Your task to perform on an android device: What's on my calendar today? Image 0: 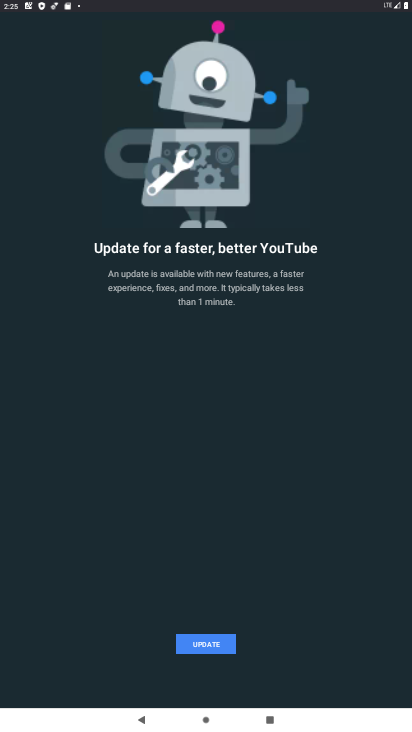
Step 0: press back button
Your task to perform on an android device: What's on my calendar today? Image 1: 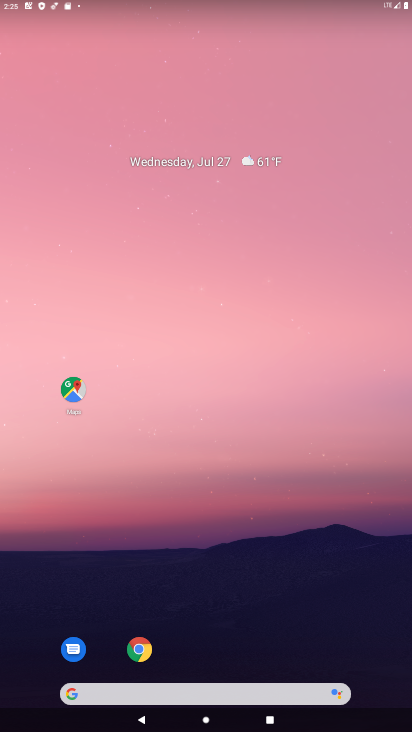
Step 1: drag from (189, 552) to (189, 166)
Your task to perform on an android device: What's on my calendar today? Image 2: 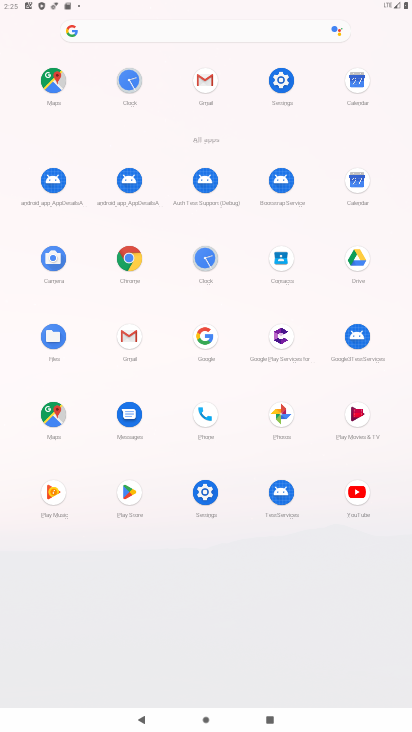
Step 2: click (361, 186)
Your task to perform on an android device: What's on my calendar today? Image 3: 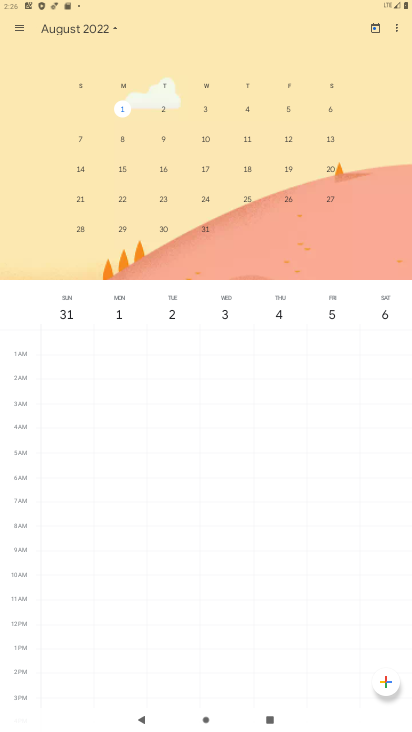
Step 3: drag from (150, 124) to (383, 150)
Your task to perform on an android device: What's on my calendar today? Image 4: 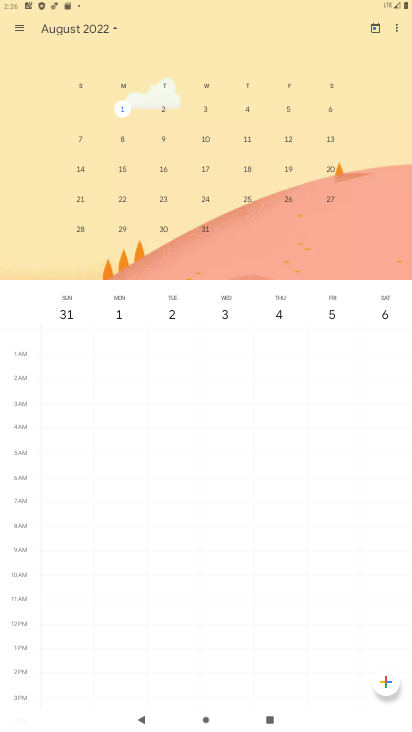
Step 4: drag from (160, 182) to (348, 150)
Your task to perform on an android device: What's on my calendar today? Image 5: 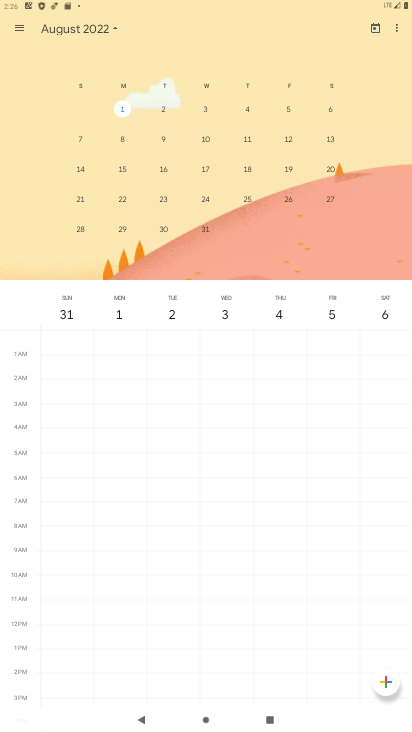
Step 5: drag from (151, 159) to (360, 141)
Your task to perform on an android device: What's on my calendar today? Image 6: 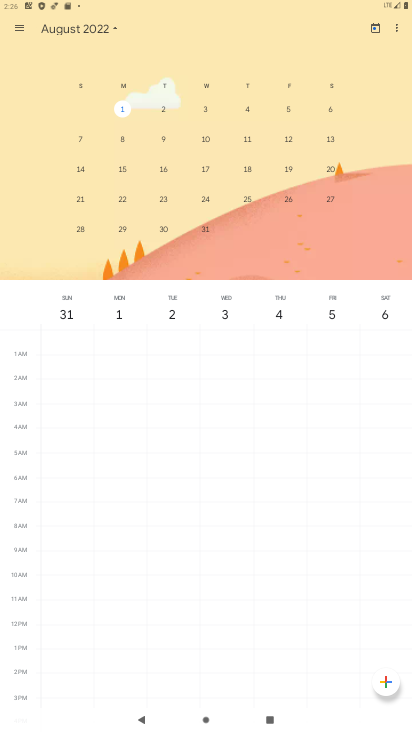
Step 6: click (396, 113)
Your task to perform on an android device: What's on my calendar today? Image 7: 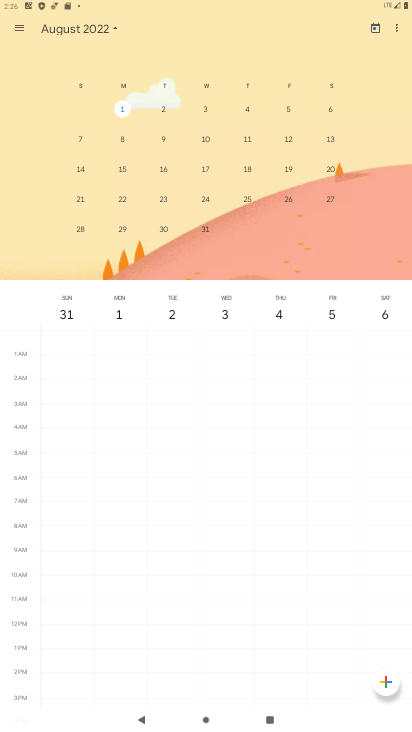
Step 7: click (365, 138)
Your task to perform on an android device: What's on my calendar today? Image 8: 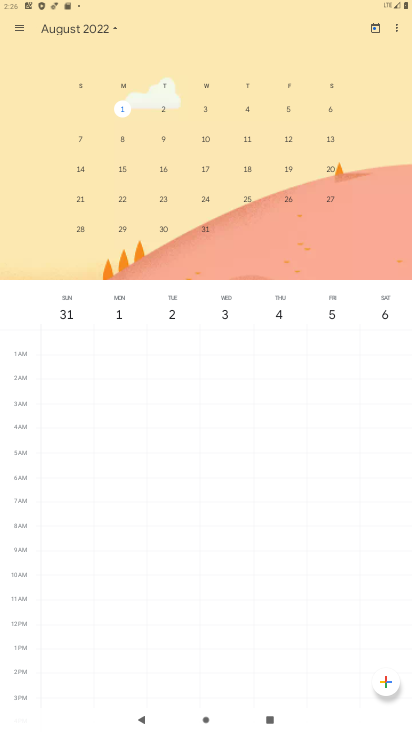
Step 8: click (379, 108)
Your task to perform on an android device: What's on my calendar today? Image 9: 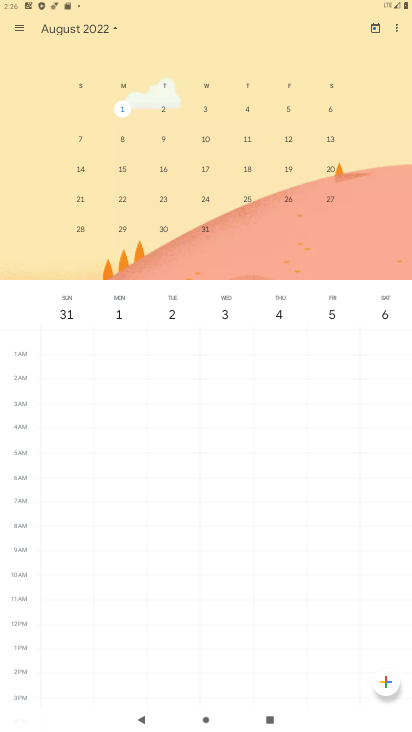
Step 9: click (394, 121)
Your task to perform on an android device: What's on my calendar today? Image 10: 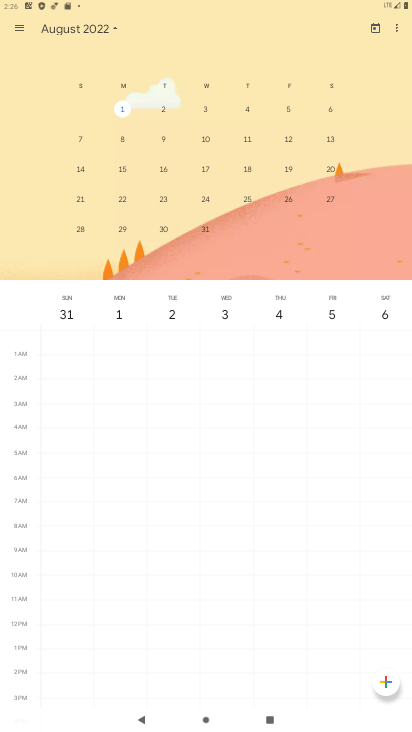
Step 10: click (390, 164)
Your task to perform on an android device: What's on my calendar today? Image 11: 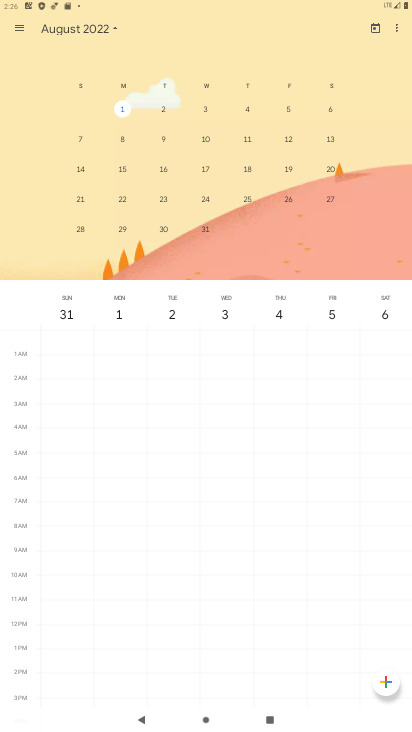
Step 11: drag from (202, 159) to (371, 110)
Your task to perform on an android device: What's on my calendar today? Image 12: 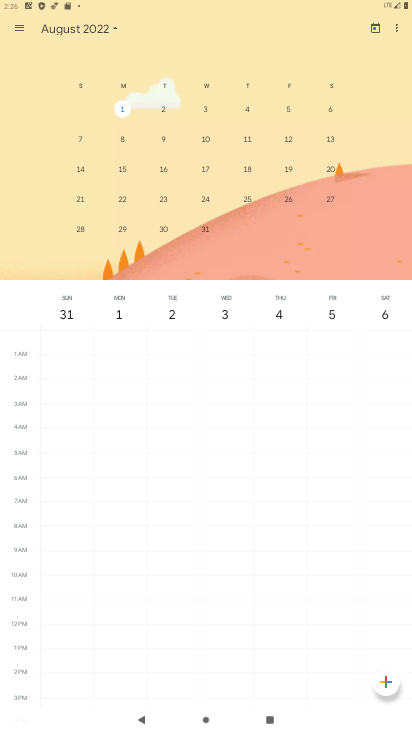
Step 12: drag from (135, 136) to (396, 135)
Your task to perform on an android device: What's on my calendar today? Image 13: 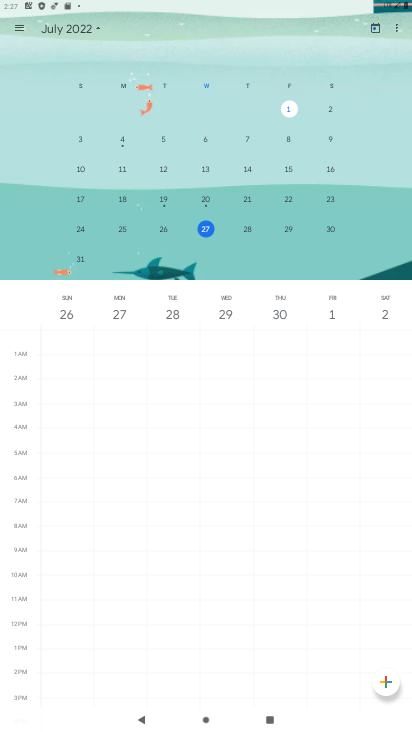
Step 13: click (204, 228)
Your task to perform on an android device: What's on my calendar today? Image 14: 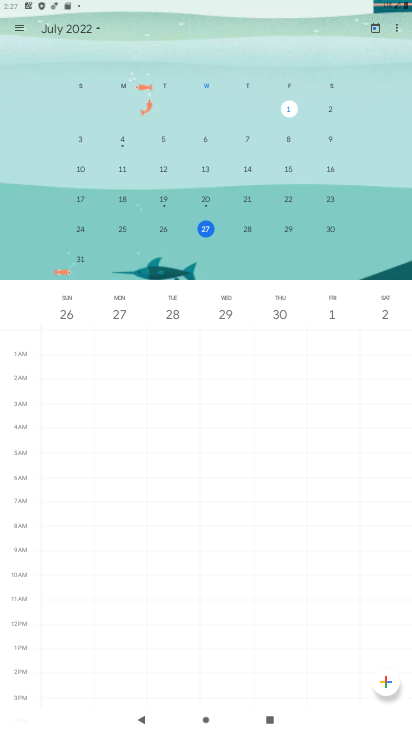
Step 14: click (204, 228)
Your task to perform on an android device: What's on my calendar today? Image 15: 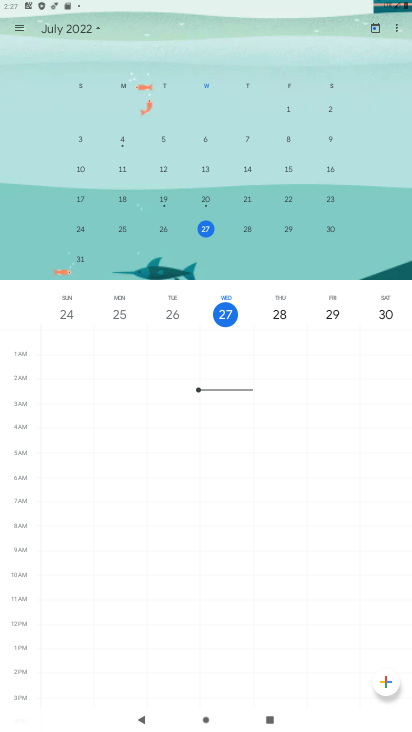
Step 15: task complete